Your task to perform on an android device: Set the phone to "Do not disturb". Image 0: 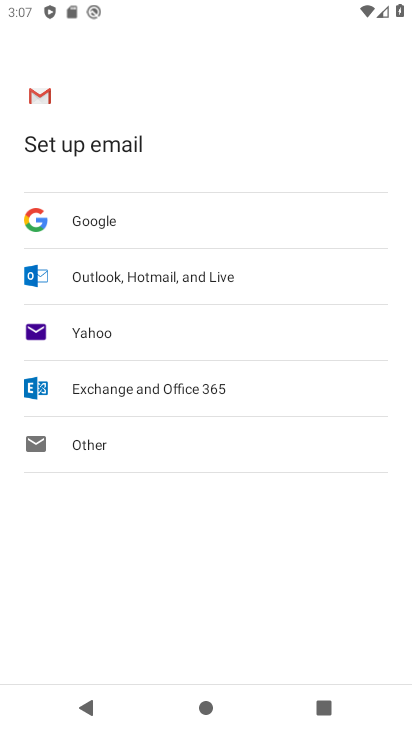
Step 0: press home button
Your task to perform on an android device: Set the phone to "Do not disturb". Image 1: 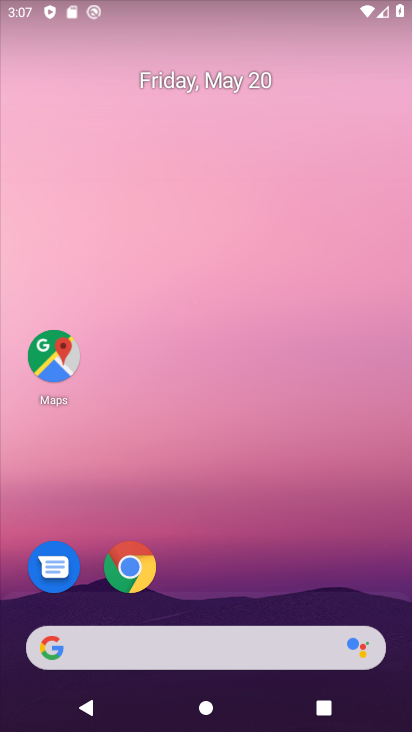
Step 1: drag from (220, 659) to (217, 24)
Your task to perform on an android device: Set the phone to "Do not disturb". Image 2: 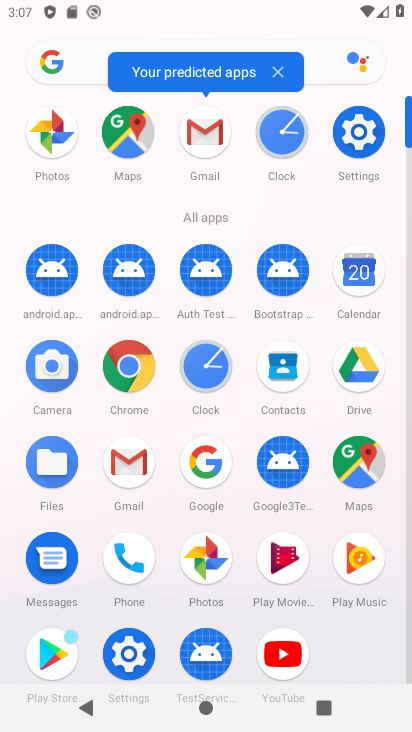
Step 2: click (352, 139)
Your task to perform on an android device: Set the phone to "Do not disturb". Image 3: 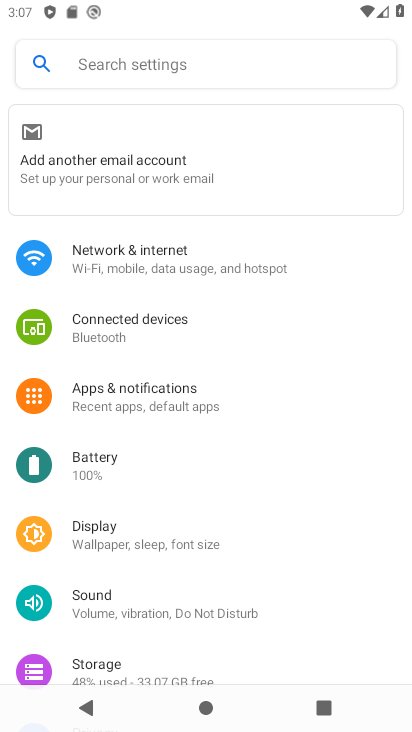
Step 3: click (141, 607)
Your task to perform on an android device: Set the phone to "Do not disturb". Image 4: 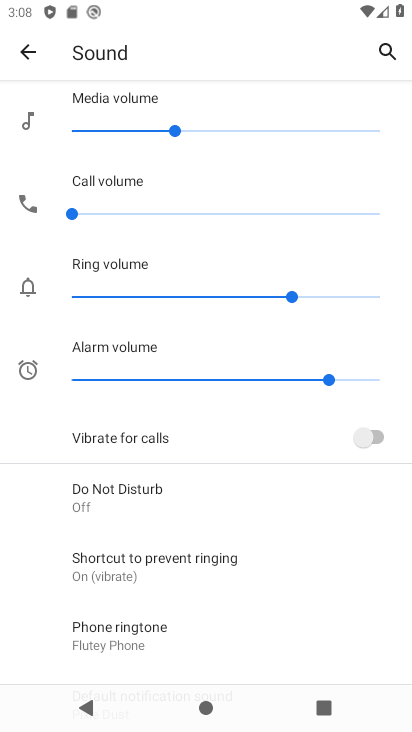
Step 4: click (76, 499)
Your task to perform on an android device: Set the phone to "Do not disturb". Image 5: 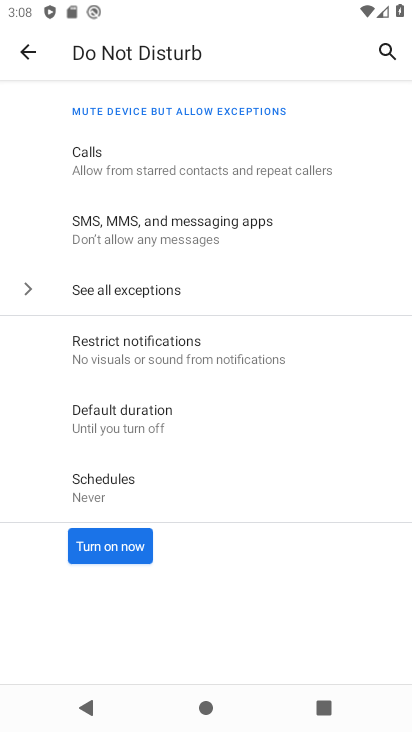
Step 5: click (126, 545)
Your task to perform on an android device: Set the phone to "Do not disturb". Image 6: 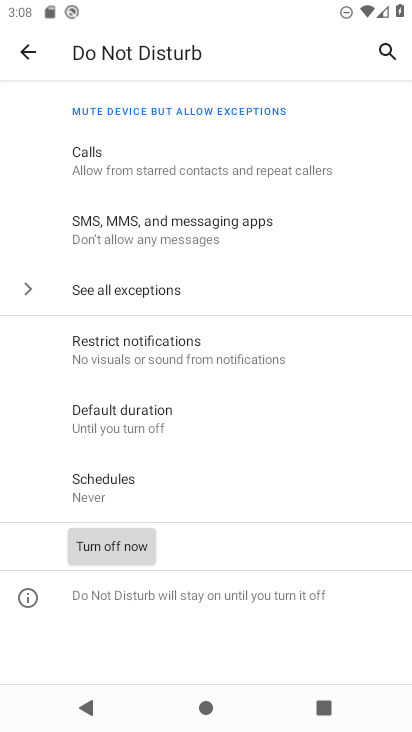
Step 6: task complete